Your task to perform on an android device: Open the phone app and click the voicemail tab. Image 0: 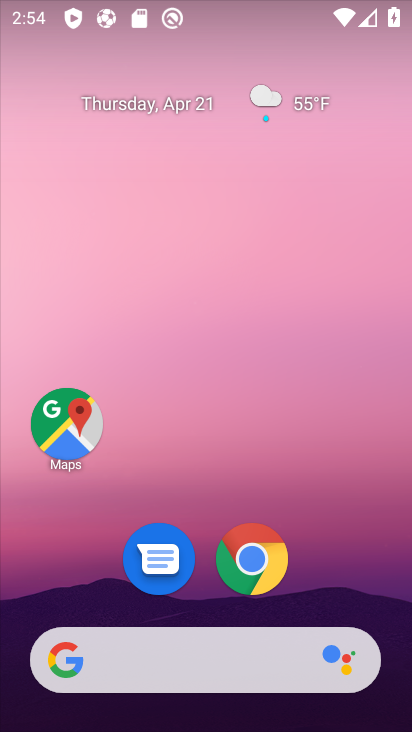
Step 0: drag from (339, 576) to (291, 44)
Your task to perform on an android device: Open the phone app and click the voicemail tab. Image 1: 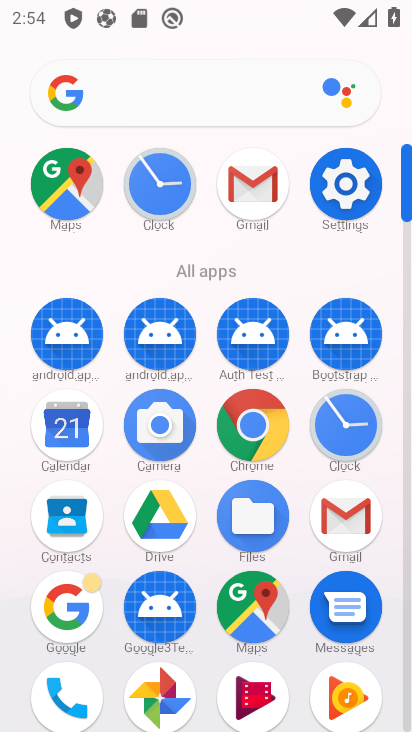
Step 1: drag from (196, 281) to (188, 58)
Your task to perform on an android device: Open the phone app and click the voicemail tab. Image 2: 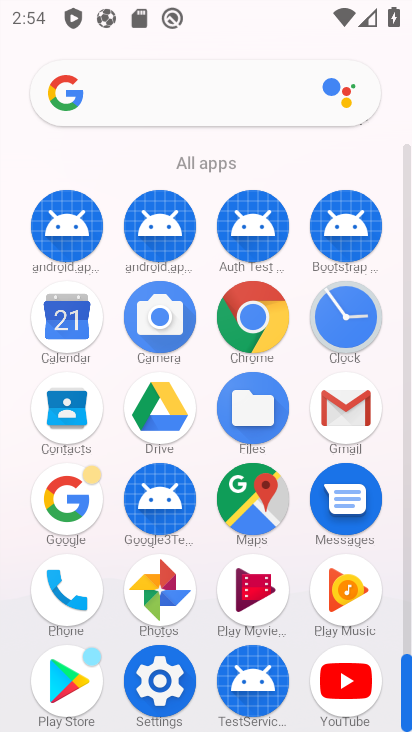
Step 2: click (72, 601)
Your task to perform on an android device: Open the phone app and click the voicemail tab. Image 3: 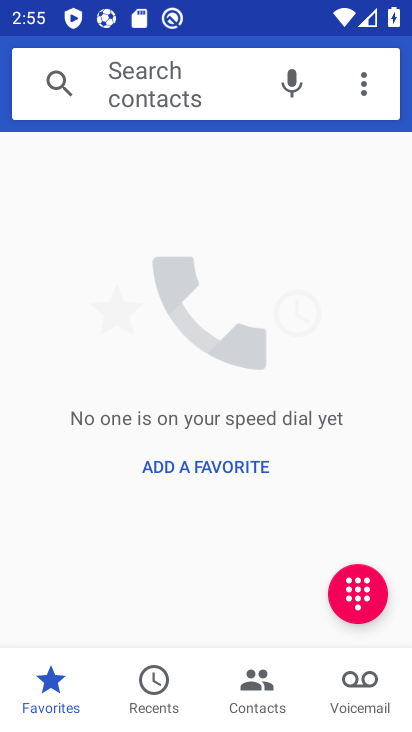
Step 3: click (353, 689)
Your task to perform on an android device: Open the phone app and click the voicemail tab. Image 4: 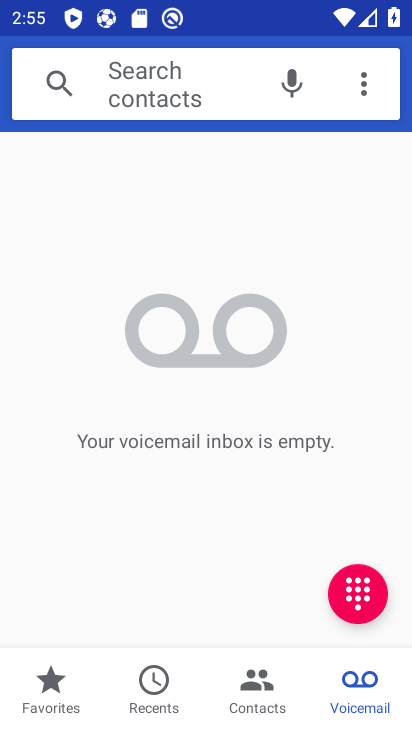
Step 4: task complete